Your task to perform on an android device: turn off sleep mode Image 0: 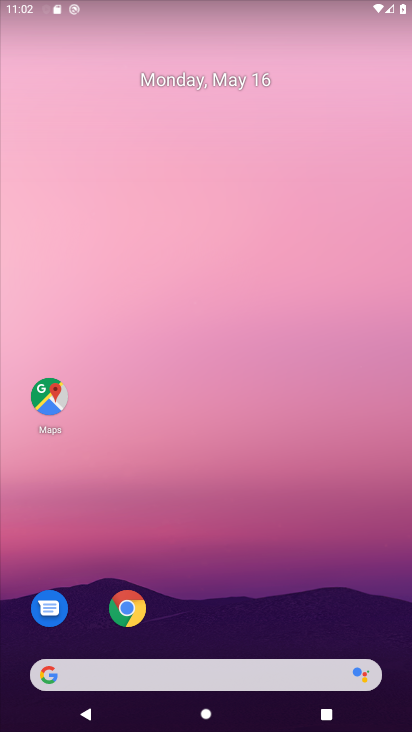
Step 0: drag from (271, 677) to (298, 175)
Your task to perform on an android device: turn off sleep mode Image 1: 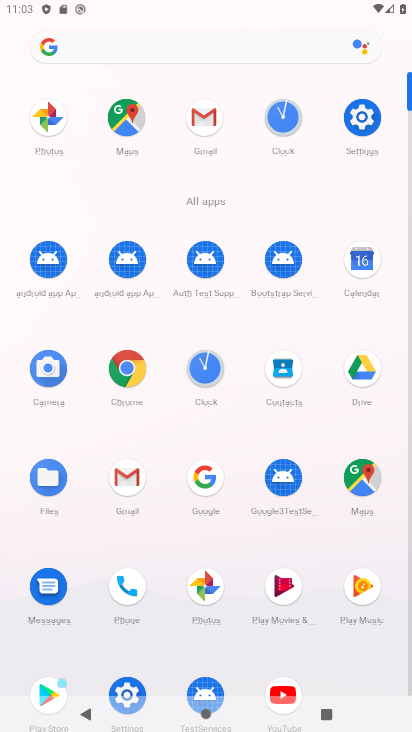
Step 1: click (359, 111)
Your task to perform on an android device: turn off sleep mode Image 2: 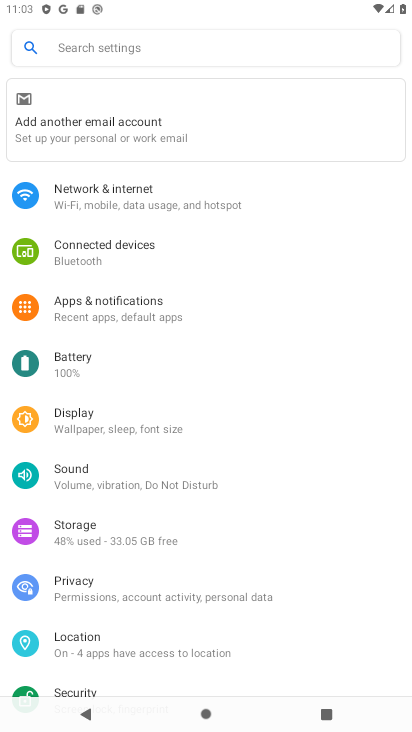
Step 2: click (115, 41)
Your task to perform on an android device: turn off sleep mode Image 3: 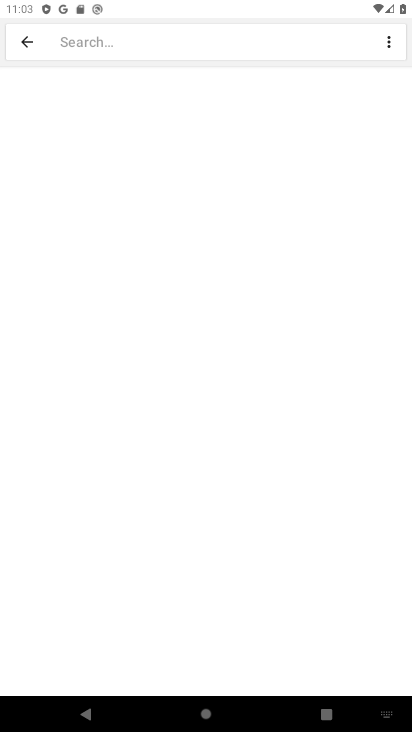
Step 3: click (116, 36)
Your task to perform on an android device: turn off sleep mode Image 4: 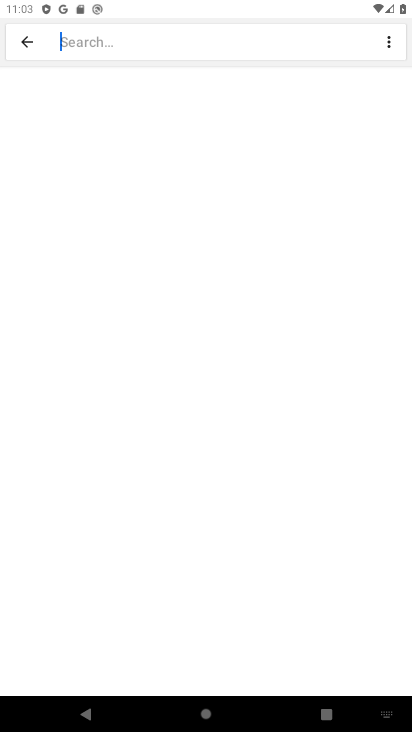
Step 4: drag from (364, 690) to (343, 562)
Your task to perform on an android device: turn off sleep mode Image 5: 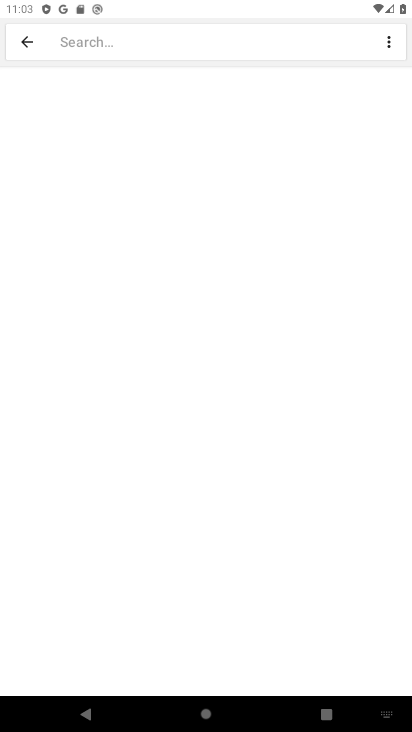
Step 5: click (394, 721)
Your task to perform on an android device: turn off sleep mode Image 6: 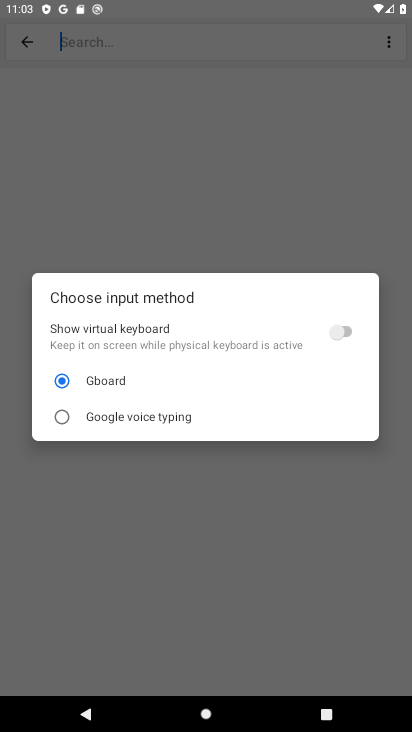
Step 6: click (343, 334)
Your task to perform on an android device: turn off sleep mode Image 7: 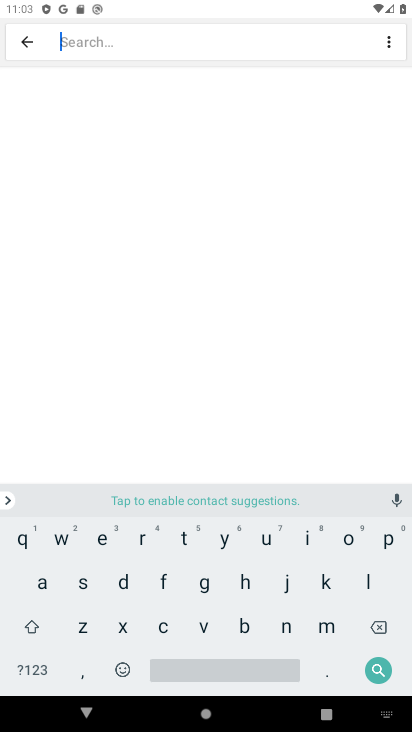
Step 7: click (84, 585)
Your task to perform on an android device: turn off sleep mode Image 8: 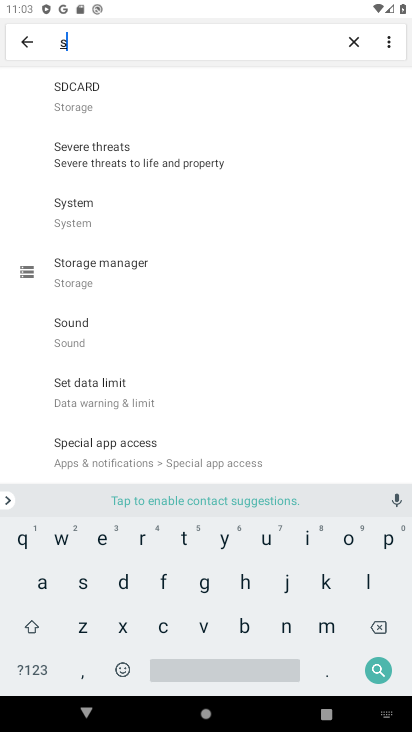
Step 8: click (369, 578)
Your task to perform on an android device: turn off sleep mode Image 9: 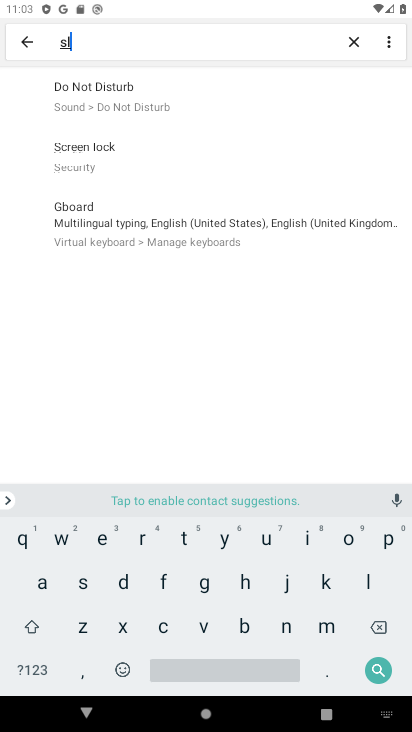
Step 9: click (121, 112)
Your task to perform on an android device: turn off sleep mode Image 10: 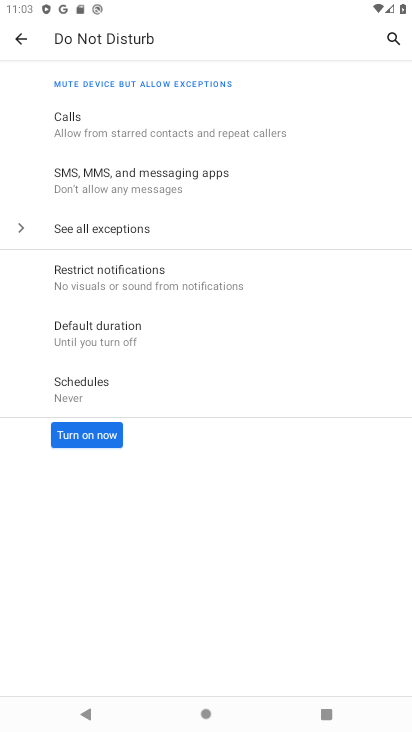
Step 10: click (71, 435)
Your task to perform on an android device: turn off sleep mode Image 11: 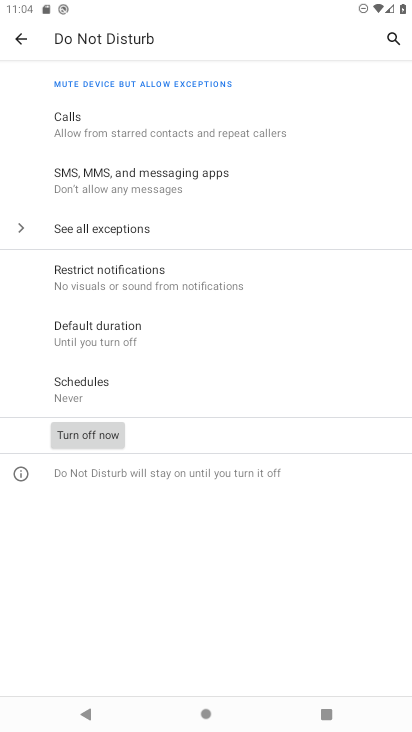
Step 11: click (73, 430)
Your task to perform on an android device: turn off sleep mode Image 12: 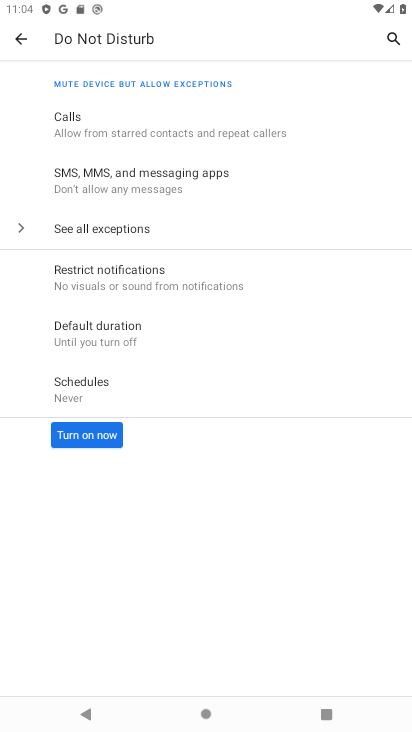
Step 12: task complete